Your task to perform on an android device: all mails in gmail Image 0: 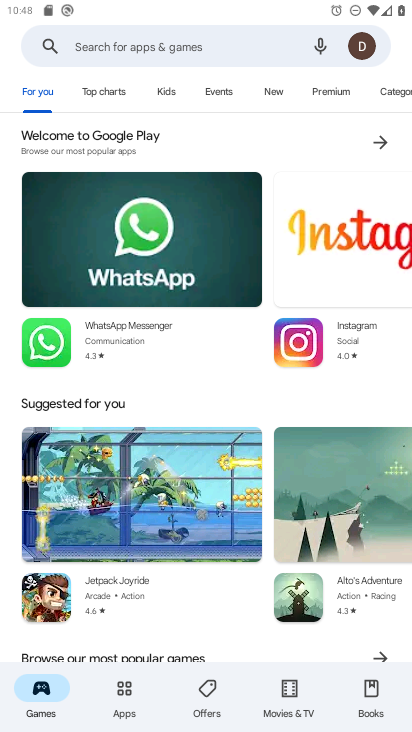
Step 0: press home button
Your task to perform on an android device: all mails in gmail Image 1: 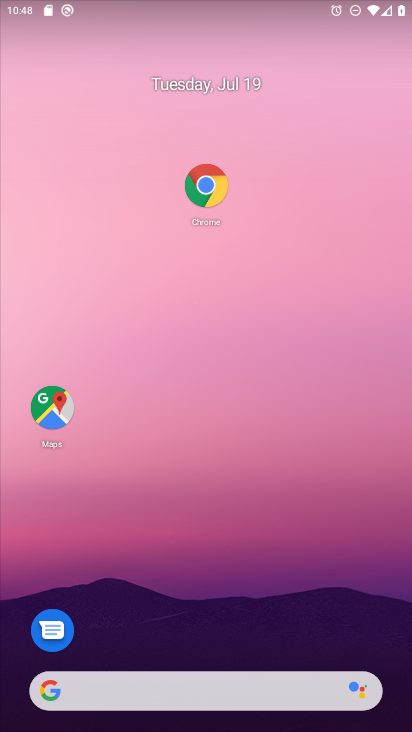
Step 1: drag from (201, 573) to (257, 136)
Your task to perform on an android device: all mails in gmail Image 2: 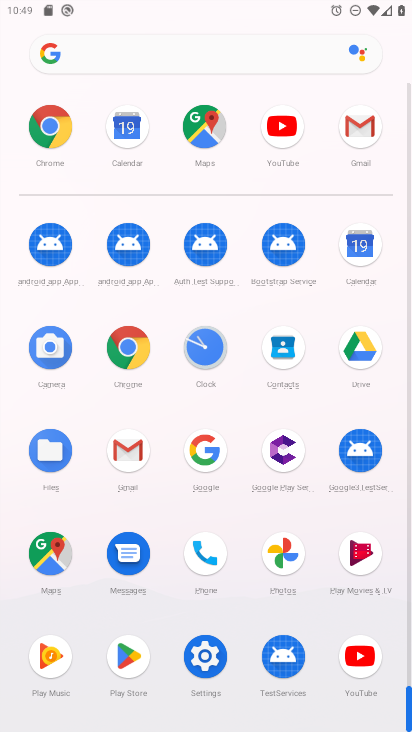
Step 2: click (128, 466)
Your task to perform on an android device: all mails in gmail Image 3: 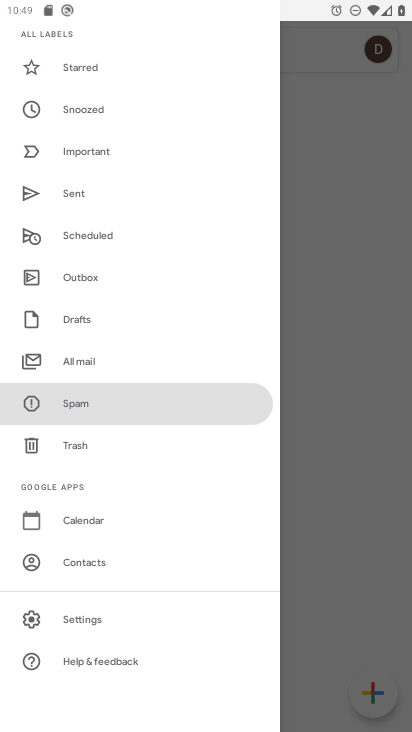
Step 3: click (85, 369)
Your task to perform on an android device: all mails in gmail Image 4: 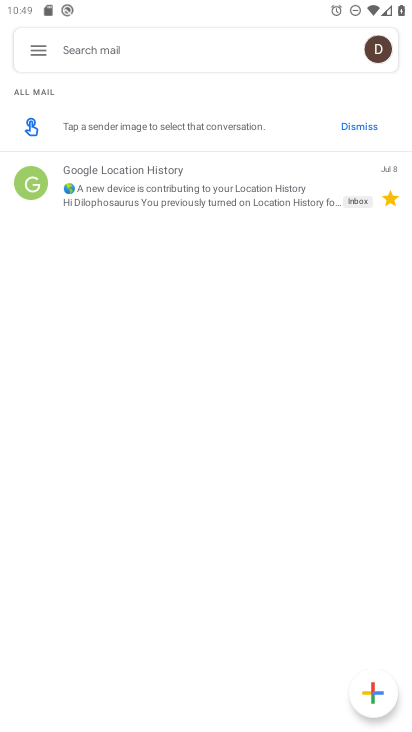
Step 4: task complete